Your task to perform on an android device: Open network settings Image 0: 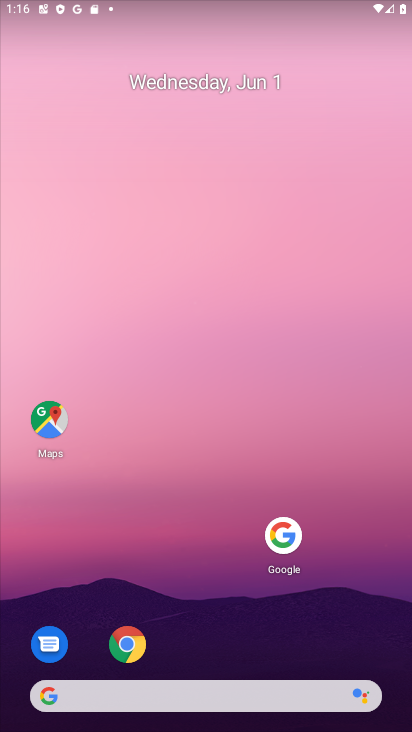
Step 0: drag from (190, 693) to (282, 213)
Your task to perform on an android device: Open network settings Image 1: 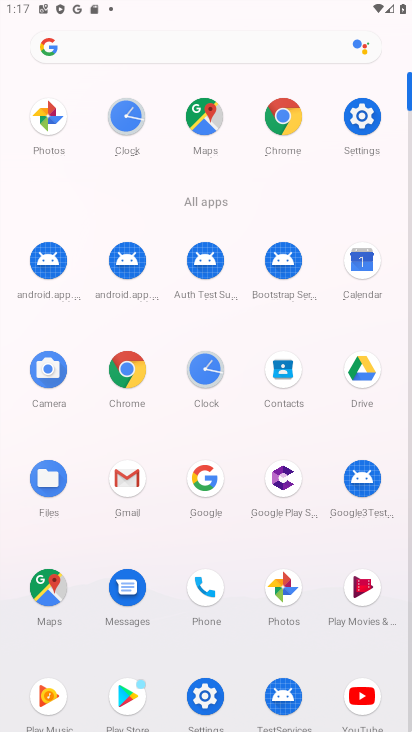
Step 1: click (368, 113)
Your task to perform on an android device: Open network settings Image 2: 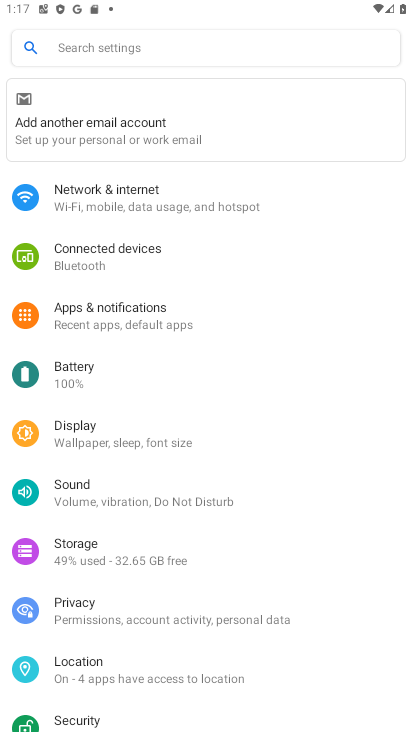
Step 2: click (141, 193)
Your task to perform on an android device: Open network settings Image 3: 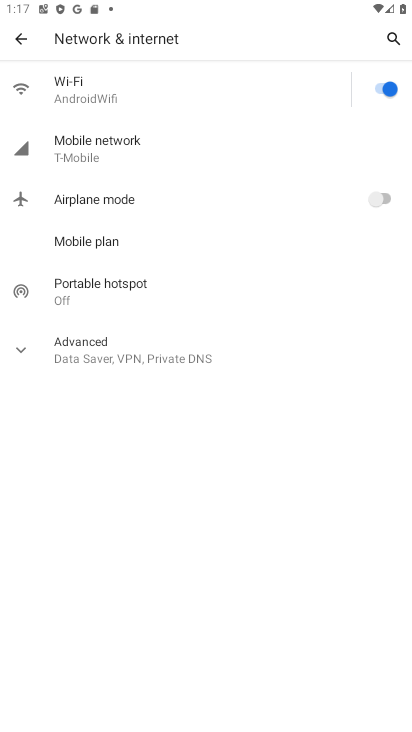
Step 3: task complete